Your task to perform on an android device: turn off javascript in the chrome app Image 0: 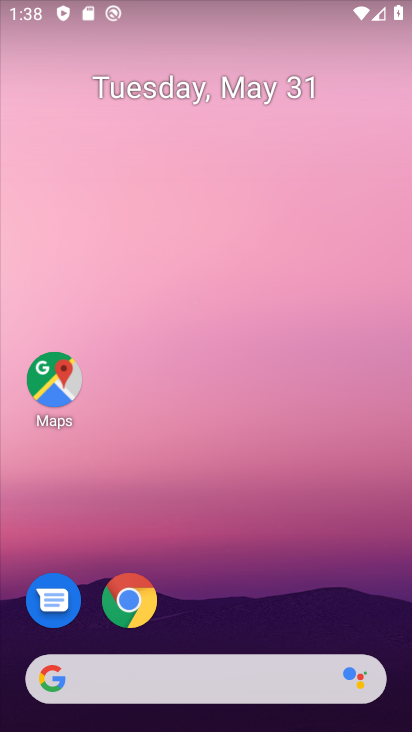
Step 0: click (117, 587)
Your task to perform on an android device: turn off javascript in the chrome app Image 1: 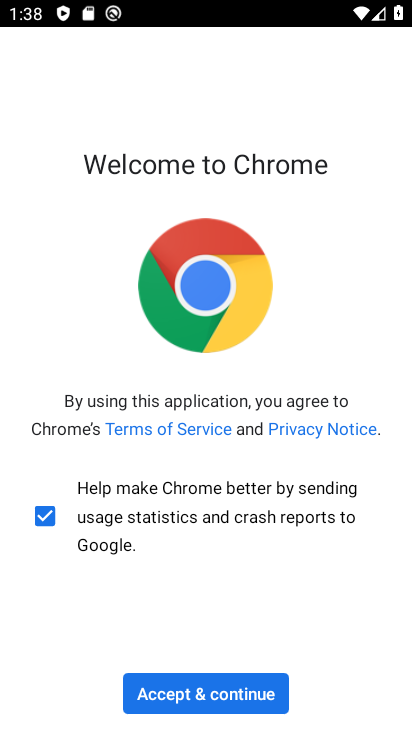
Step 1: click (194, 689)
Your task to perform on an android device: turn off javascript in the chrome app Image 2: 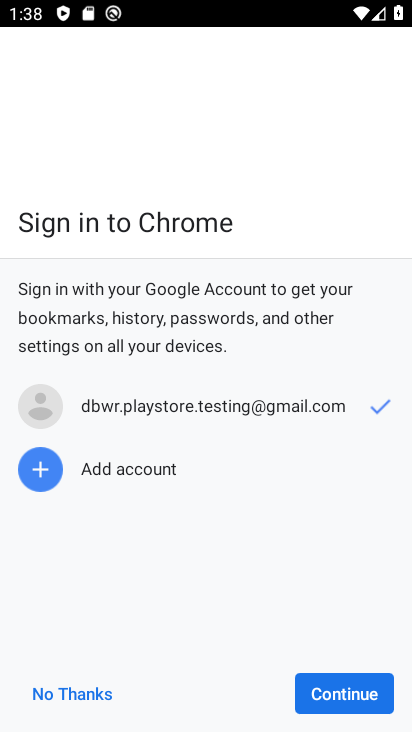
Step 2: click (335, 682)
Your task to perform on an android device: turn off javascript in the chrome app Image 3: 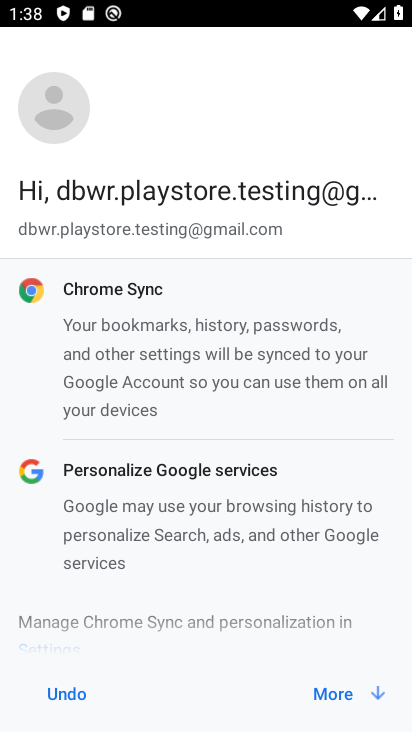
Step 3: click (336, 696)
Your task to perform on an android device: turn off javascript in the chrome app Image 4: 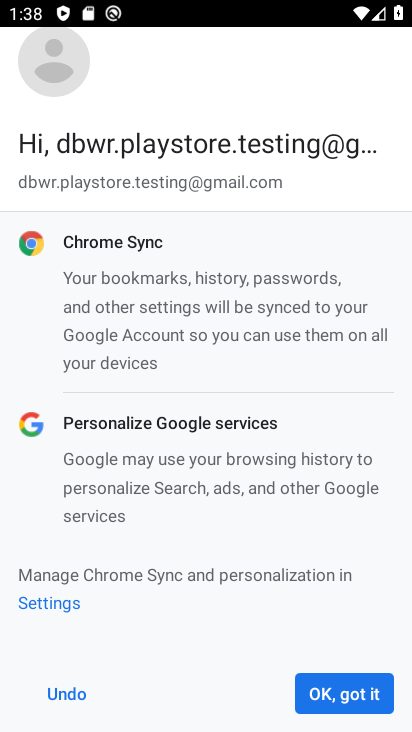
Step 4: click (341, 694)
Your task to perform on an android device: turn off javascript in the chrome app Image 5: 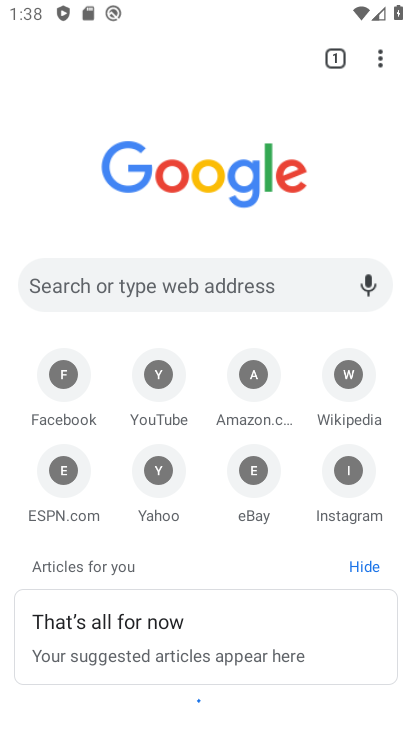
Step 5: click (381, 54)
Your task to perform on an android device: turn off javascript in the chrome app Image 6: 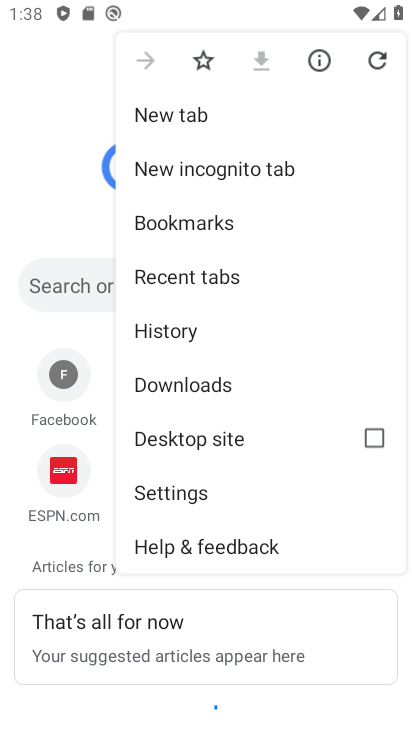
Step 6: click (217, 490)
Your task to perform on an android device: turn off javascript in the chrome app Image 7: 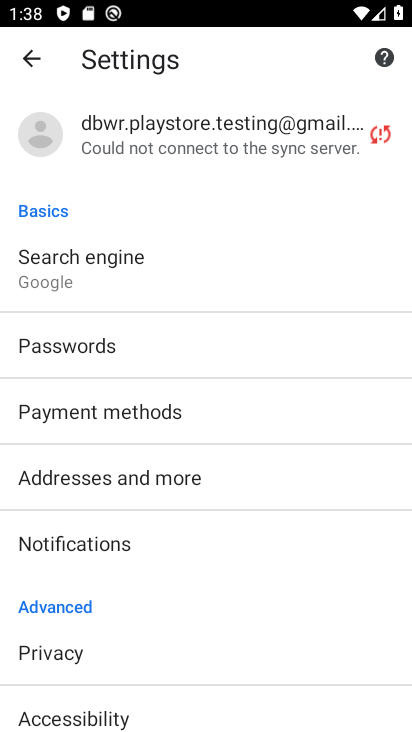
Step 7: drag from (154, 654) to (169, 125)
Your task to perform on an android device: turn off javascript in the chrome app Image 8: 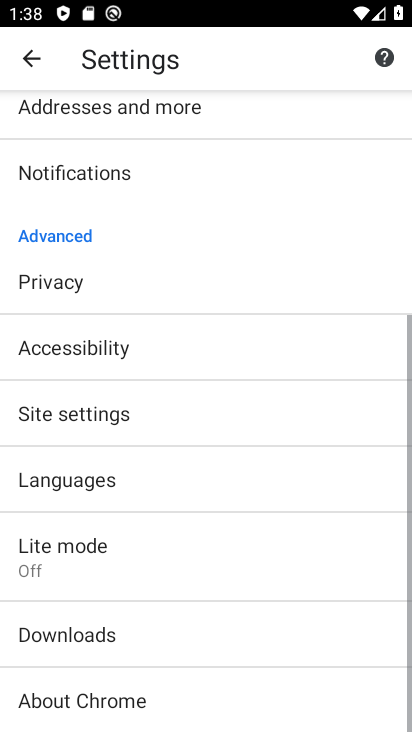
Step 8: click (132, 406)
Your task to perform on an android device: turn off javascript in the chrome app Image 9: 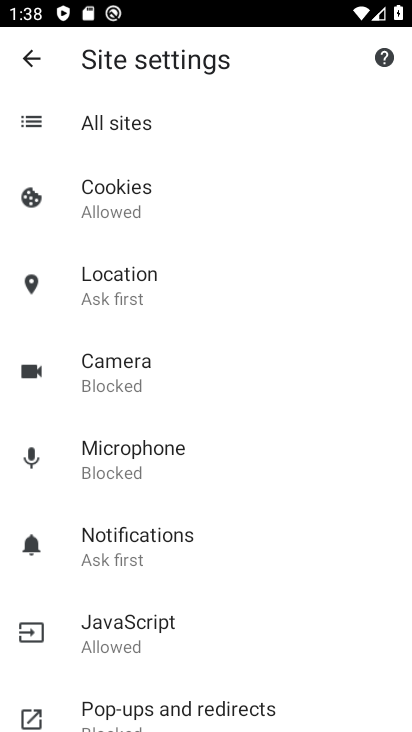
Step 9: click (141, 622)
Your task to perform on an android device: turn off javascript in the chrome app Image 10: 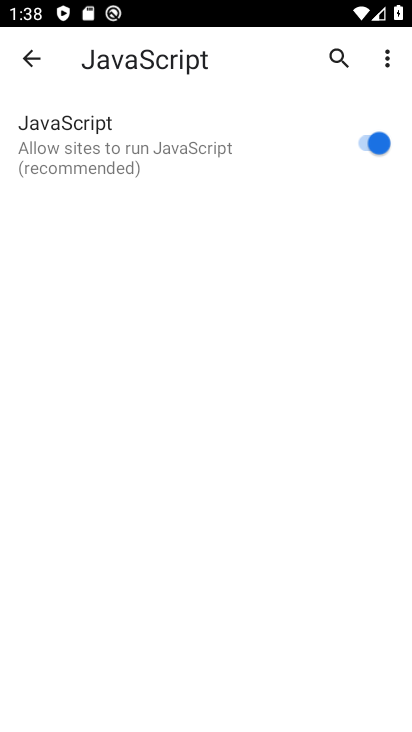
Step 10: click (362, 134)
Your task to perform on an android device: turn off javascript in the chrome app Image 11: 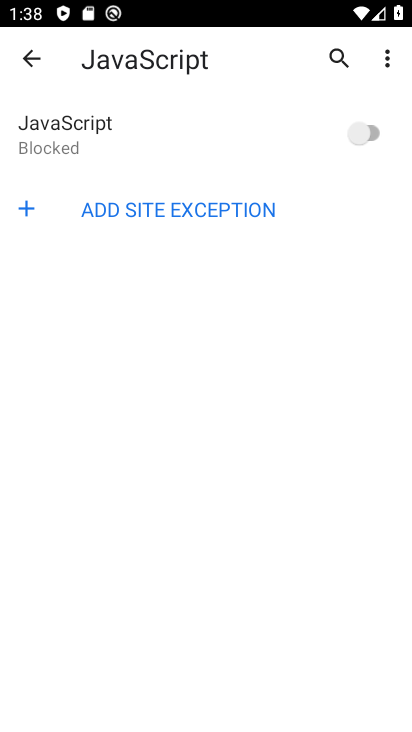
Step 11: task complete